Your task to perform on an android device: Open Google Chrome and click the shortcut for Amazon.com Image 0: 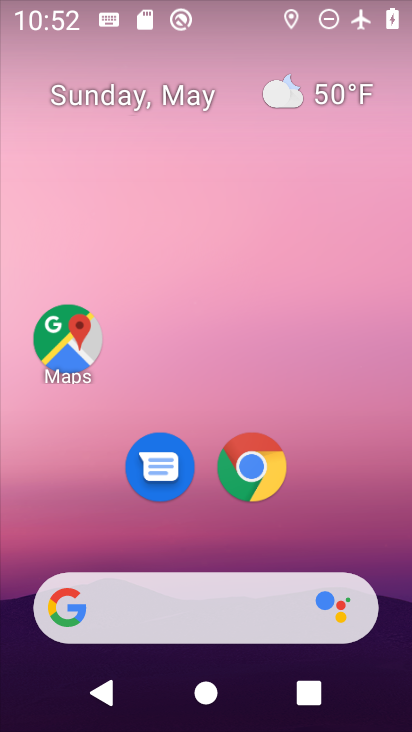
Step 0: drag from (213, 528) to (206, 154)
Your task to perform on an android device: Open Google Chrome and click the shortcut for Amazon.com Image 1: 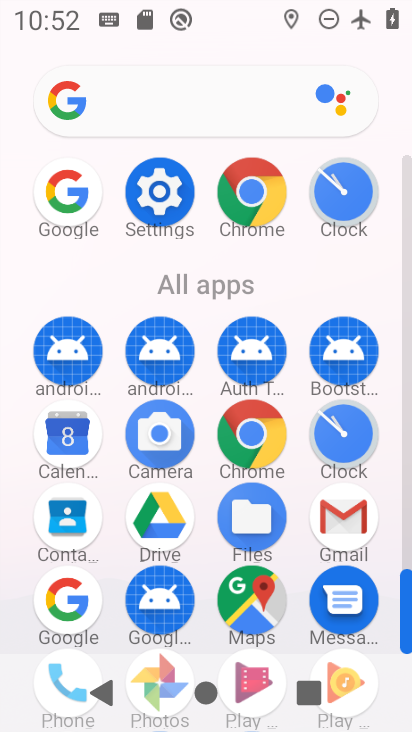
Step 1: click (223, 219)
Your task to perform on an android device: Open Google Chrome and click the shortcut for Amazon.com Image 2: 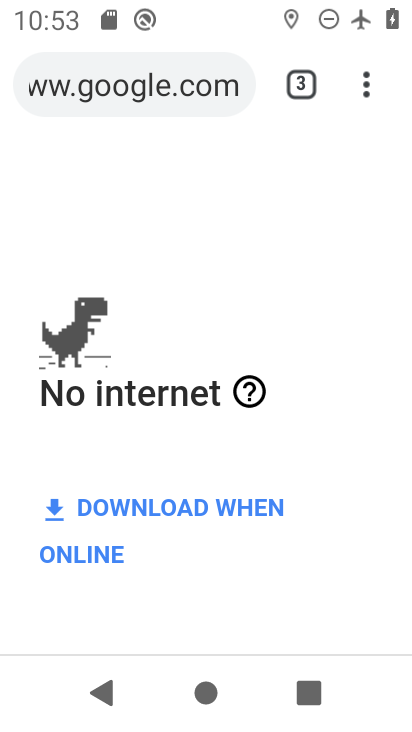
Step 2: click (307, 90)
Your task to perform on an android device: Open Google Chrome and click the shortcut for Amazon.com Image 3: 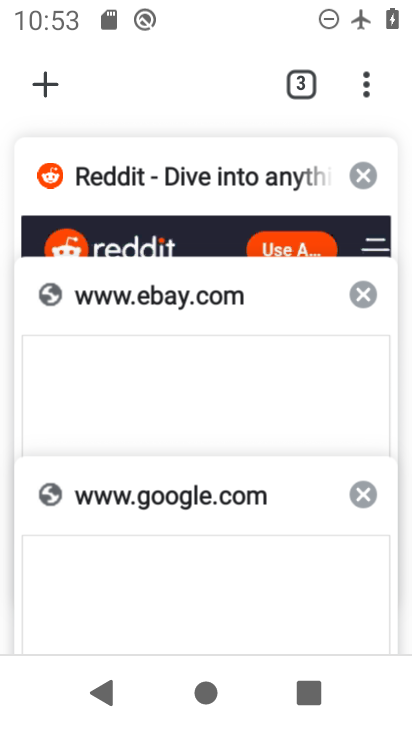
Step 3: click (43, 78)
Your task to perform on an android device: Open Google Chrome and click the shortcut for Amazon.com Image 4: 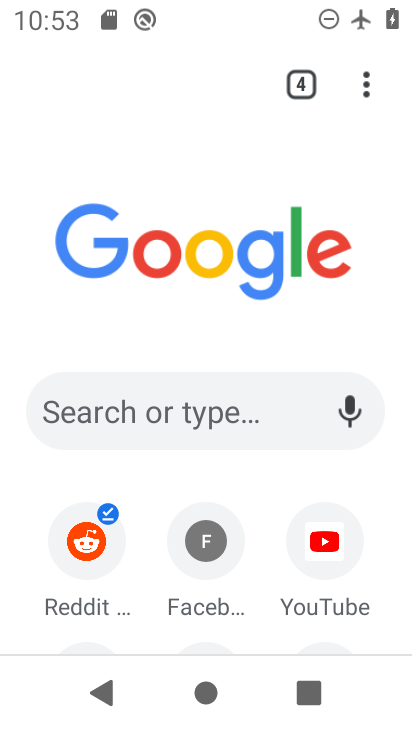
Step 4: drag from (186, 480) to (188, 205)
Your task to perform on an android device: Open Google Chrome and click the shortcut for Amazon.com Image 5: 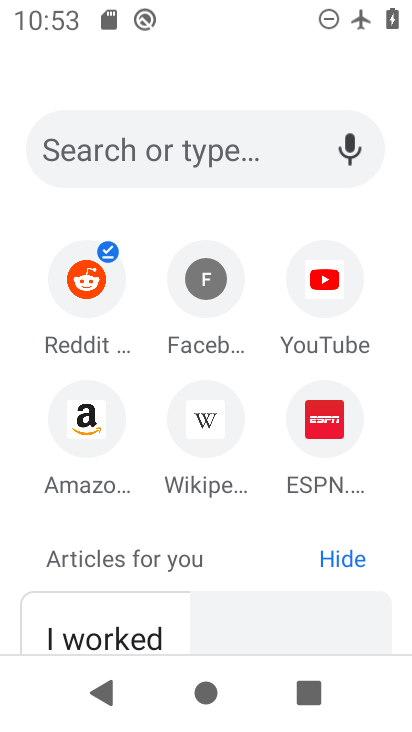
Step 5: click (88, 433)
Your task to perform on an android device: Open Google Chrome and click the shortcut for Amazon.com Image 6: 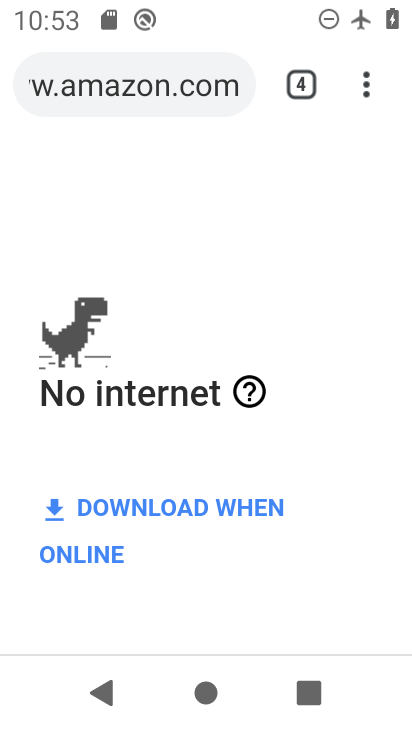
Step 6: task complete